Your task to perform on an android device: Go to CNN.com Image 0: 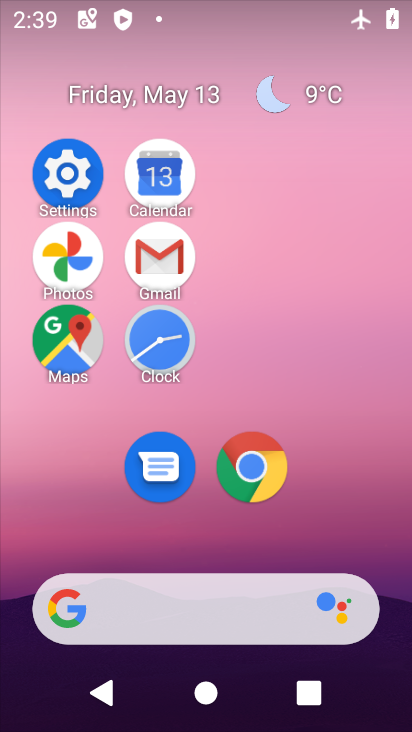
Step 0: click (247, 475)
Your task to perform on an android device: Go to CNN.com Image 1: 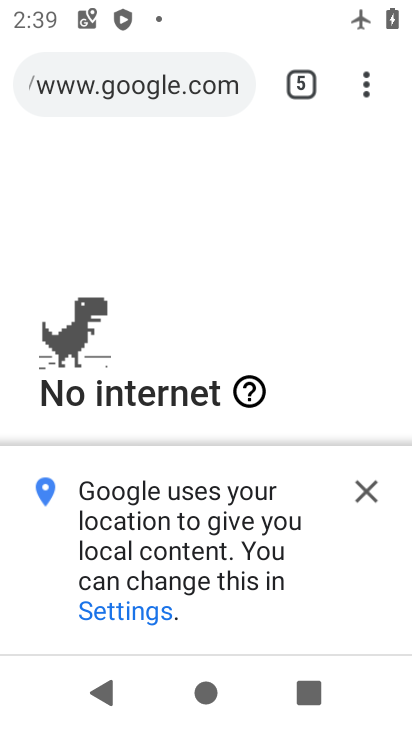
Step 1: click (304, 76)
Your task to perform on an android device: Go to CNN.com Image 2: 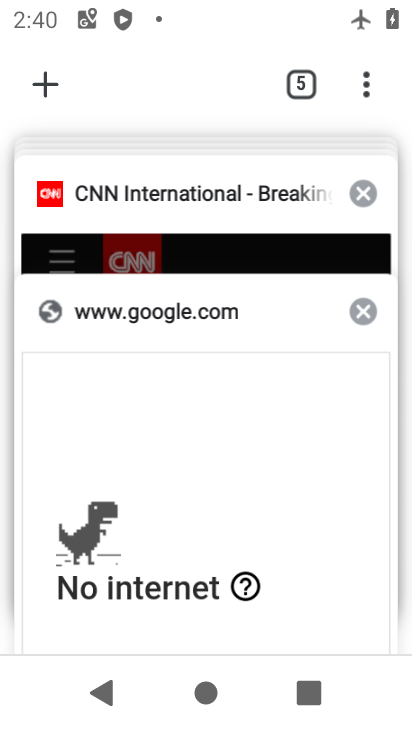
Step 2: click (176, 188)
Your task to perform on an android device: Go to CNN.com Image 3: 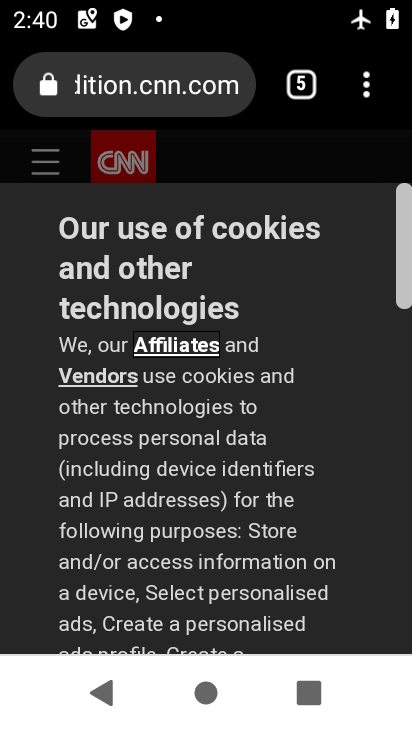
Step 3: task complete